Your task to perform on an android device: open app "Venmo" Image 0: 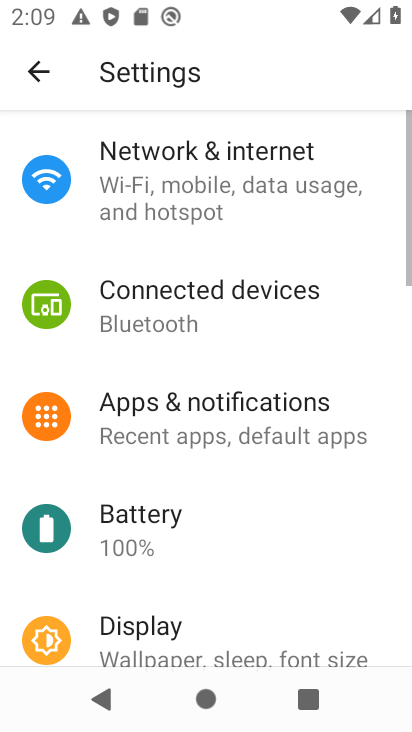
Step 0: press home button
Your task to perform on an android device: open app "Venmo" Image 1: 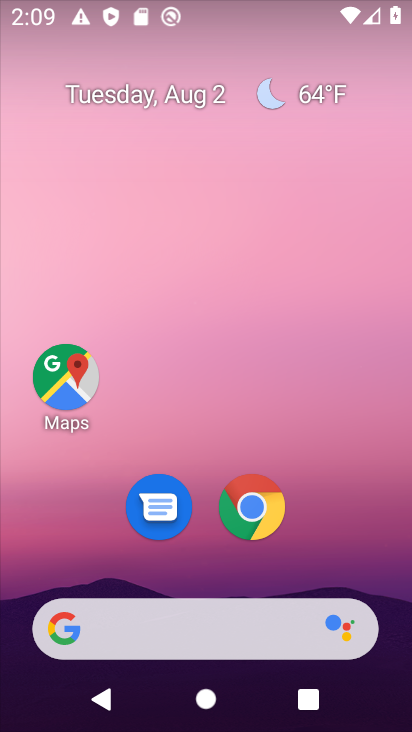
Step 1: drag from (213, 265) to (203, 0)
Your task to perform on an android device: open app "Venmo" Image 2: 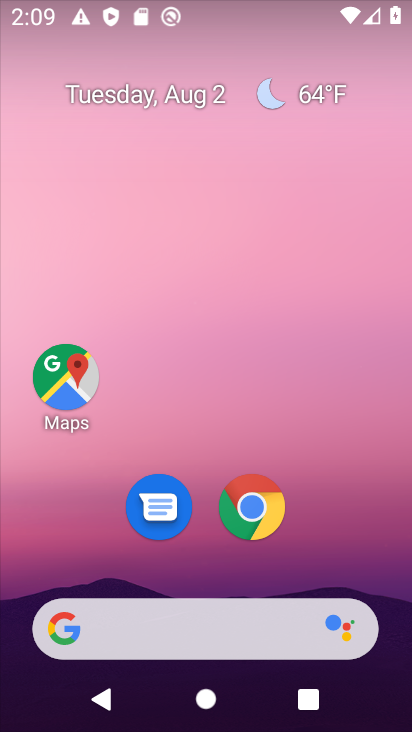
Step 2: drag from (222, 500) to (149, 2)
Your task to perform on an android device: open app "Venmo" Image 3: 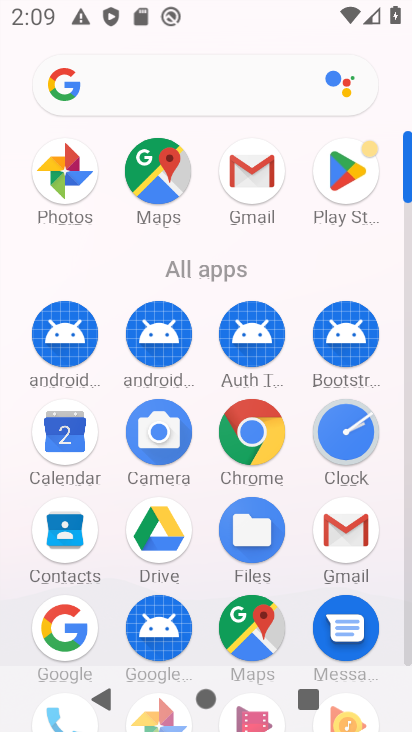
Step 3: click (345, 178)
Your task to perform on an android device: open app "Venmo" Image 4: 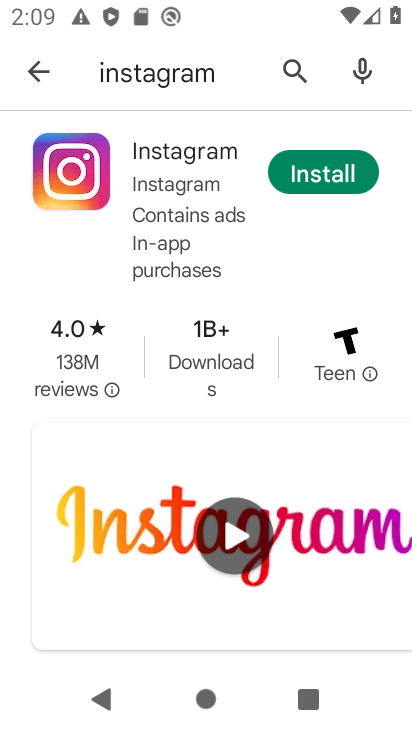
Step 4: click (175, 73)
Your task to perform on an android device: open app "Venmo" Image 5: 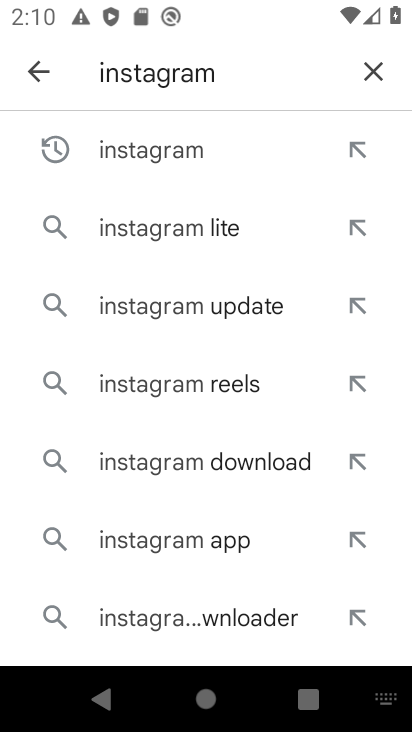
Step 5: click (374, 71)
Your task to perform on an android device: open app "Venmo" Image 6: 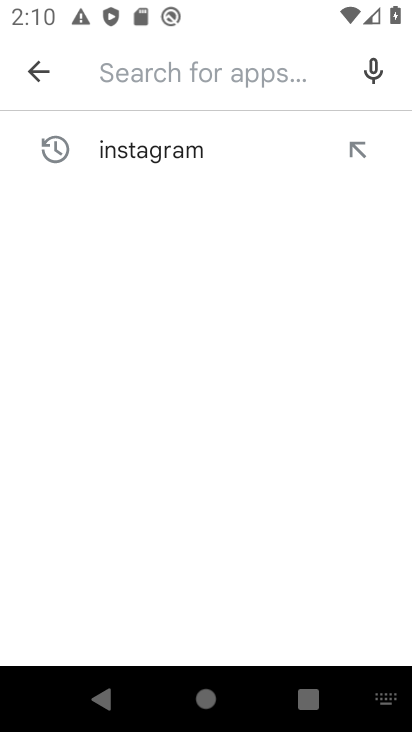
Step 6: type "venmo"
Your task to perform on an android device: open app "Venmo" Image 7: 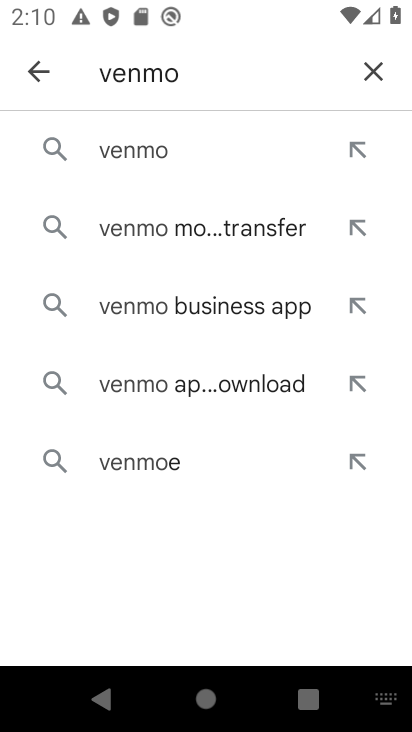
Step 7: click (186, 161)
Your task to perform on an android device: open app "Venmo" Image 8: 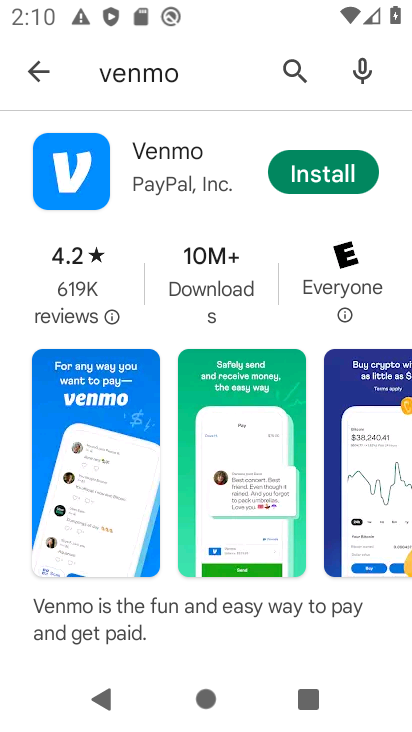
Step 8: task complete